Your task to perform on an android device: Go to location settings Image 0: 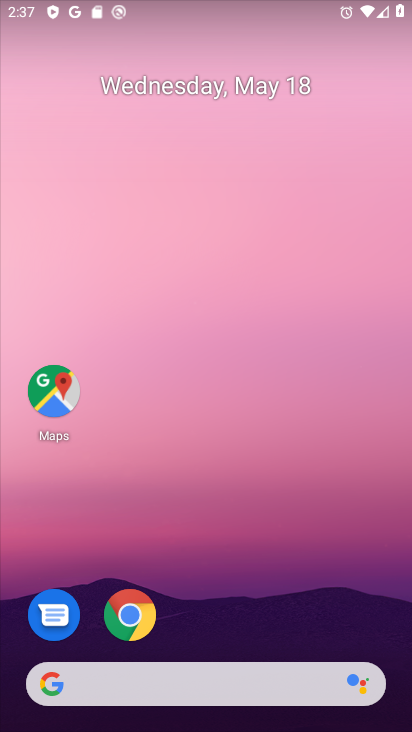
Step 0: drag from (195, 645) to (226, 304)
Your task to perform on an android device: Go to location settings Image 1: 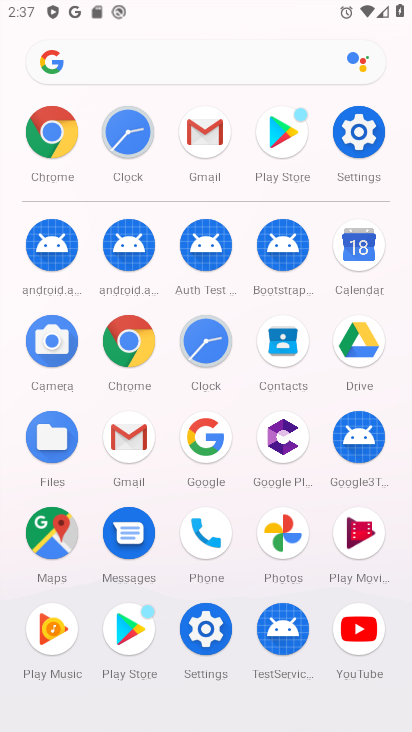
Step 1: click (364, 132)
Your task to perform on an android device: Go to location settings Image 2: 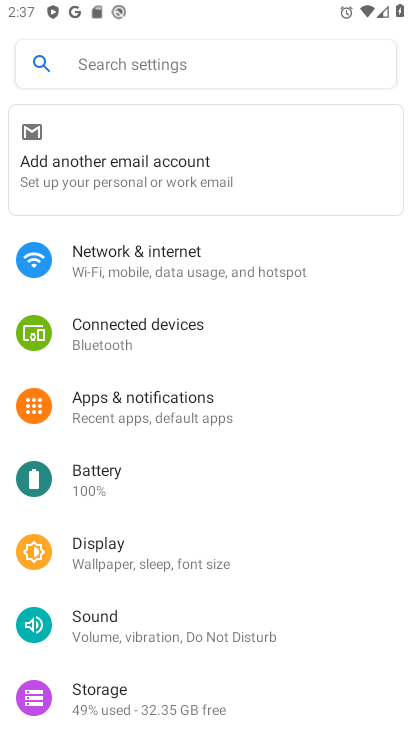
Step 2: drag from (167, 607) to (222, 310)
Your task to perform on an android device: Go to location settings Image 3: 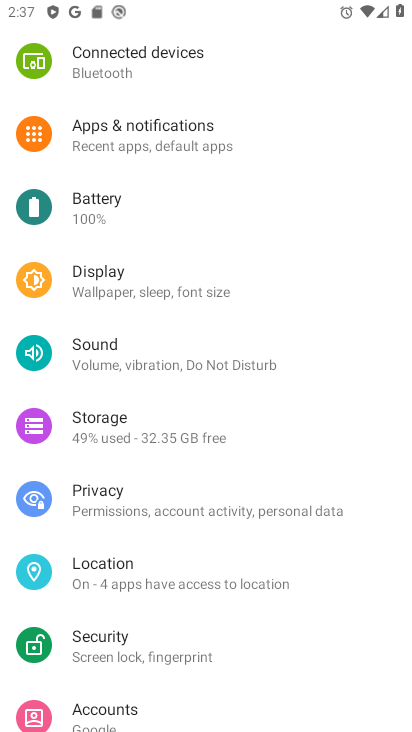
Step 3: click (130, 571)
Your task to perform on an android device: Go to location settings Image 4: 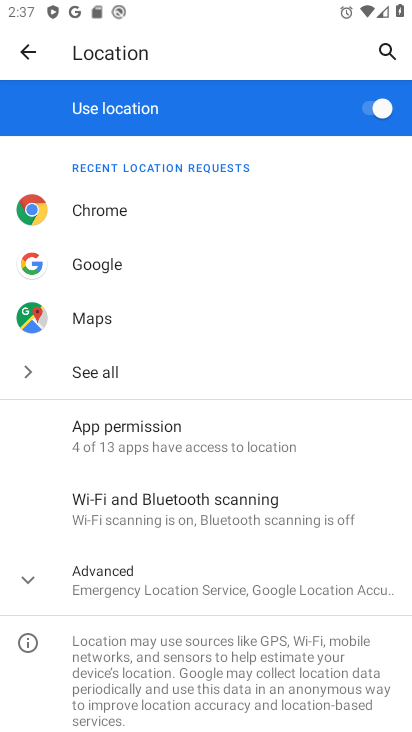
Step 4: task complete